Your task to perform on an android device: read, delete, or share a saved page in the chrome app Image 0: 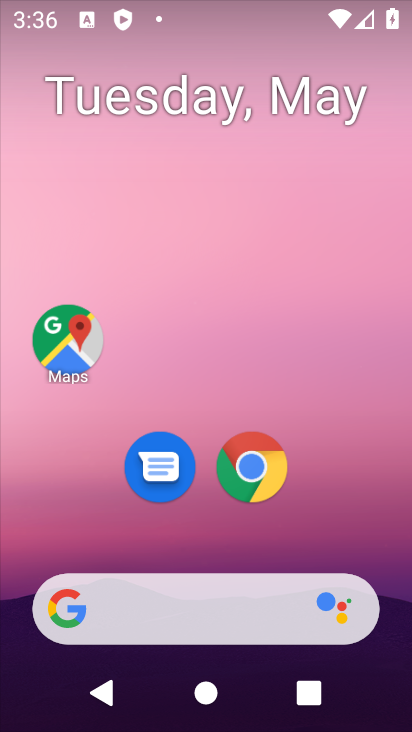
Step 0: task complete